Your task to perform on an android device: turn off airplane mode Image 0: 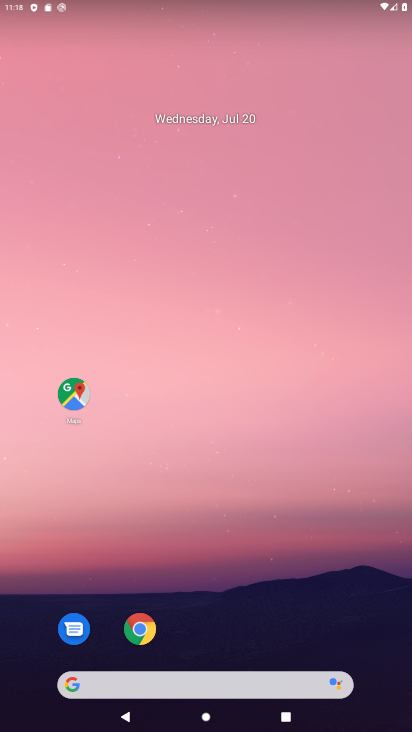
Step 0: drag from (168, 679) to (278, 8)
Your task to perform on an android device: turn off airplane mode Image 1: 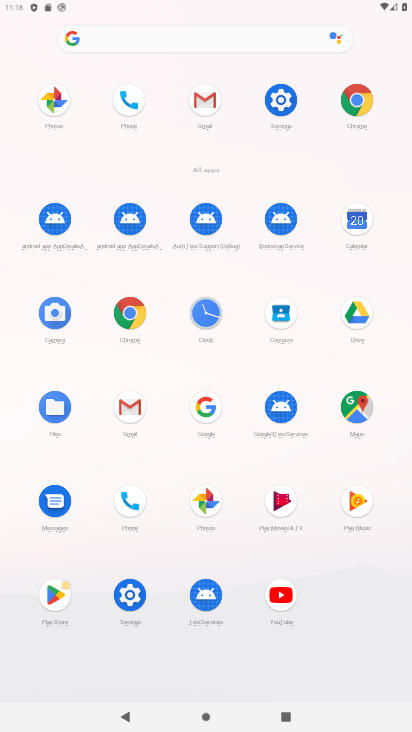
Step 1: click (277, 100)
Your task to perform on an android device: turn off airplane mode Image 2: 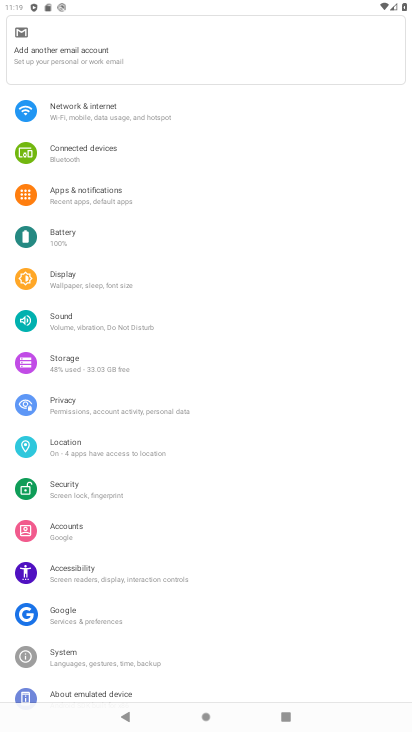
Step 2: click (82, 124)
Your task to perform on an android device: turn off airplane mode Image 3: 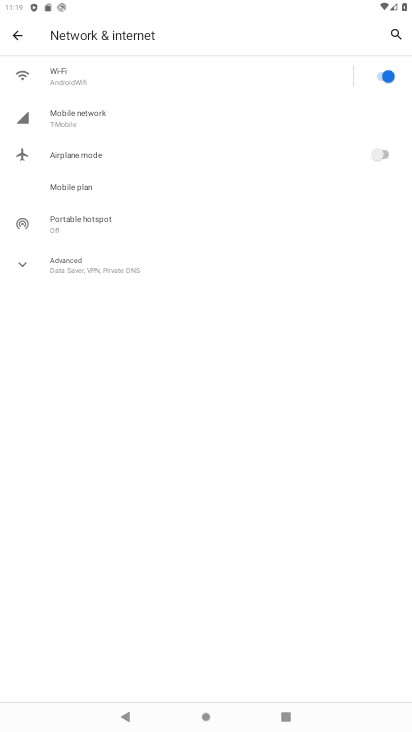
Step 3: task complete